Your task to perform on an android device: turn on javascript in the chrome app Image 0: 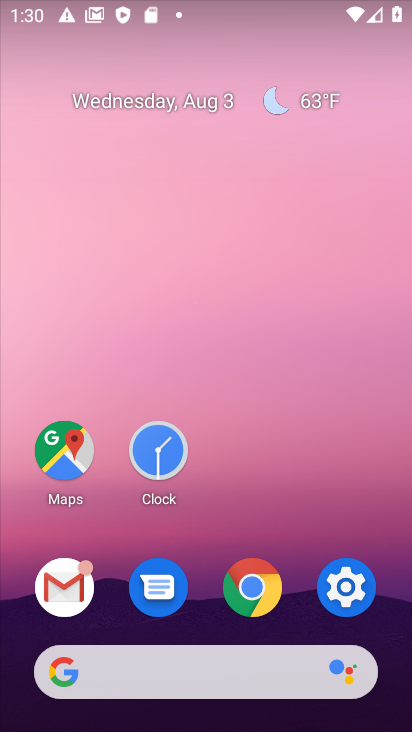
Step 0: click (248, 584)
Your task to perform on an android device: turn on javascript in the chrome app Image 1: 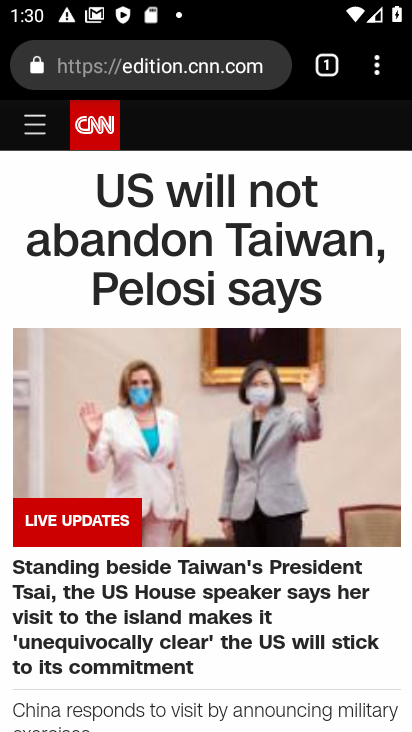
Step 1: click (377, 64)
Your task to perform on an android device: turn on javascript in the chrome app Image 2: 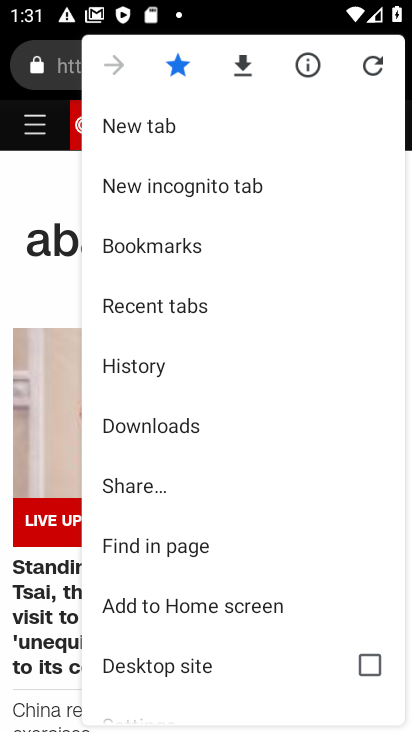
Step 2: drag from (200, 629) to (124, 276)
Your task to perform on an android device: turn on javascript in the chrome app Image 3: 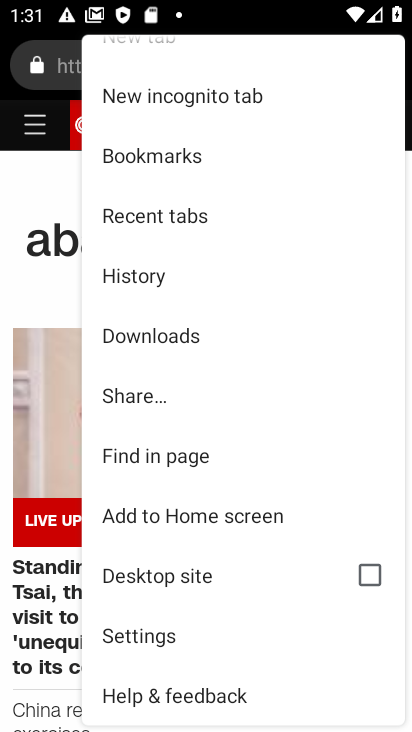
Step 3: click (166, 635)
Your task to perform on an android device: turn on javascript in the chrome app Image 4: 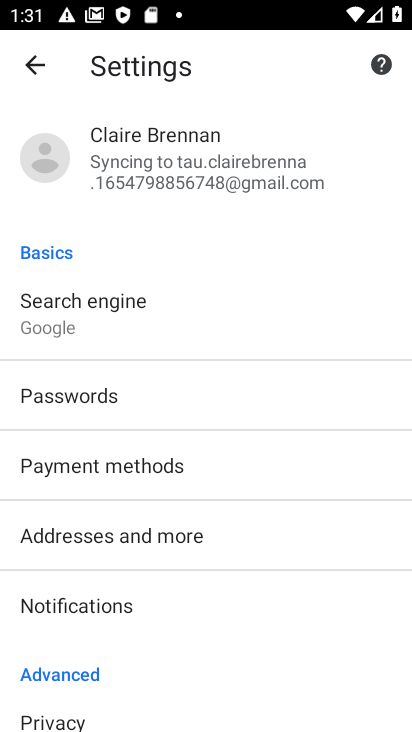
Step 4: drag from (160, 630) to (111, 178)
Your task to perform on an android device: turn on javascript in the chrome app Image 5: 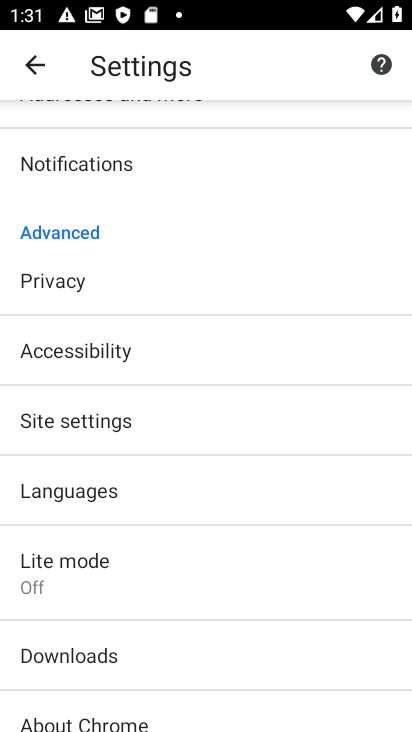
Step 5: click (74, 419)
Your task to perform on an android device: turn on javascript in the chrome app Image 6: 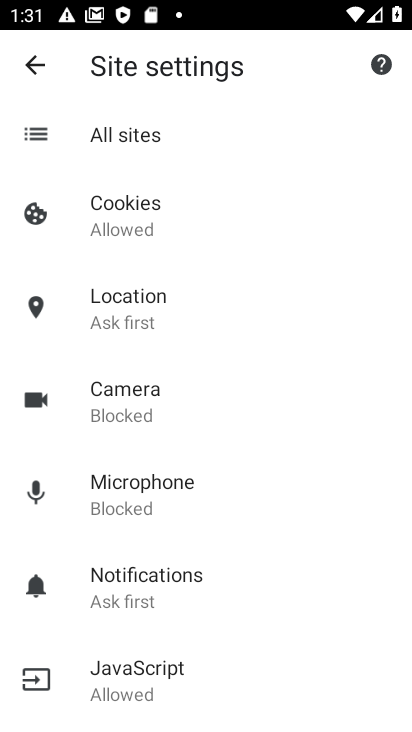
Step 6: click (118, 671)
Your task to perform on an android device: turn on javascript in the chrome app Image 7: 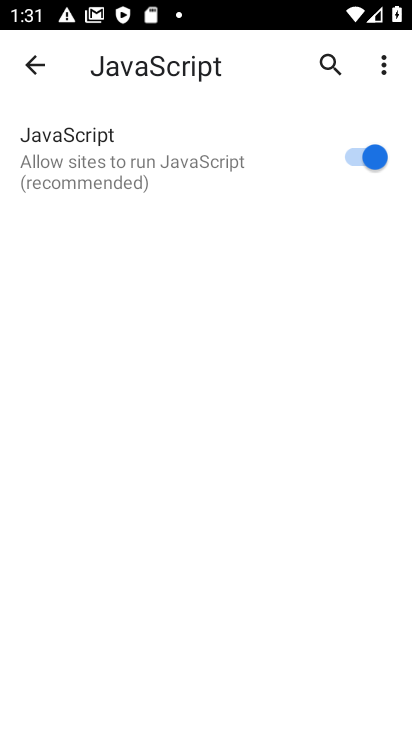
Step 7: task complete